Your task to perform on an android device: turn off sleep mode Image 0: 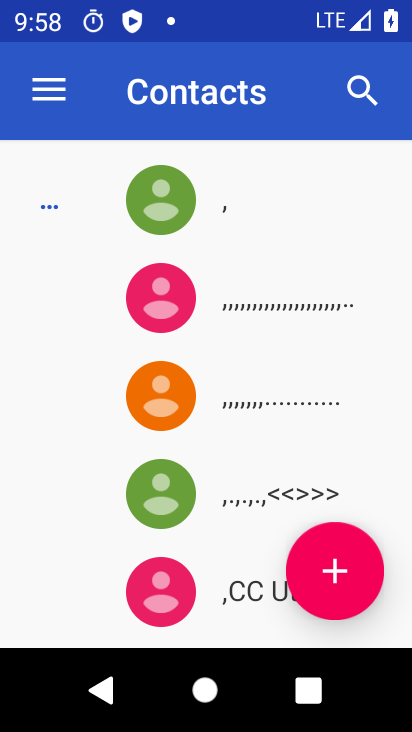
Step 0: press home button
Your task to perform on an android device: turn off sleep mode Image 1: 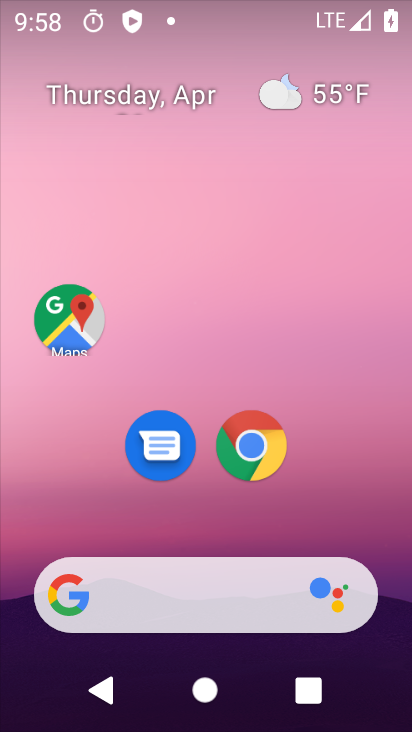
Step 1: drag from (382, 471) to (320, 18)
Your task to perform on an android device: turn off sleep mode Image 2: 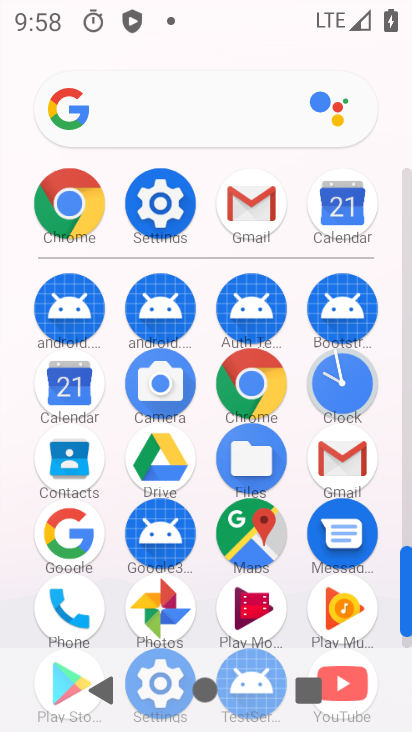
Step 2: click (155, 201)
Your task to perform on an android device: turn off sleep mode Image 3: 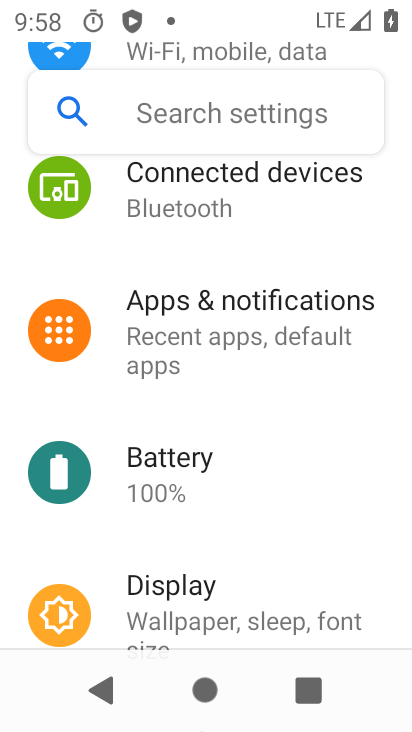
Step 3: click (177, 587)
Your task to perform on an android device: turn off sleep mode Image 4: 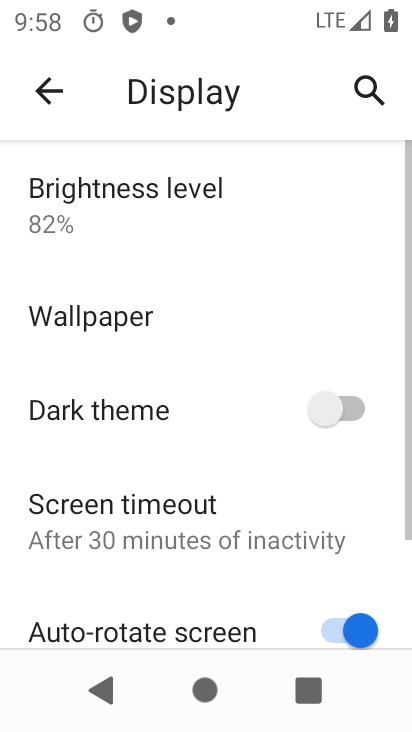
Step 4: drag from (226, 530) to (197, 163)
Your task to perform on an android device: turn off sleep mode Image 5: 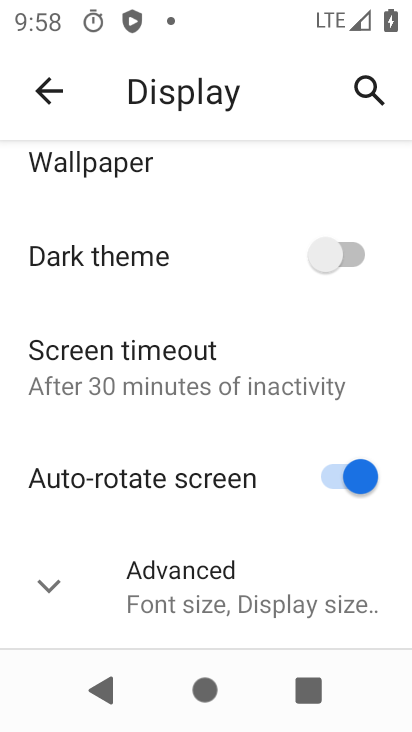
Step 5: click (48, 592)
Your task to perform on an android device: turn off sleep mode Image 6: 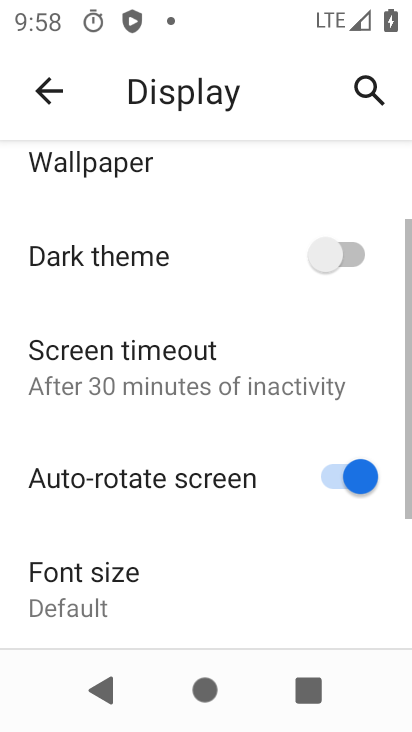
Step 6: task complete